Your task to perform on an android device: Go to Yahoo.com Image 0: 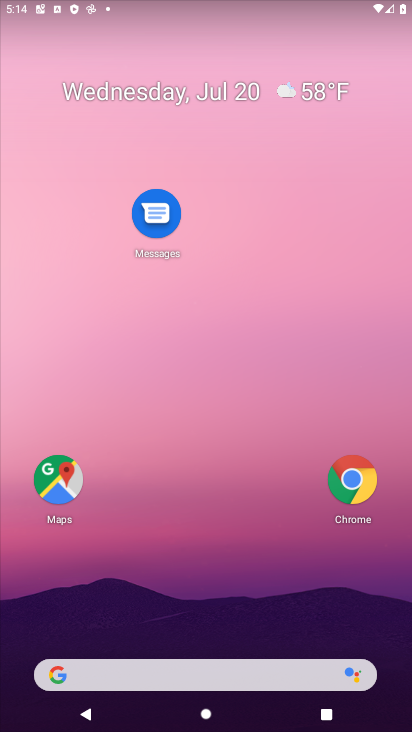
Step 0: click (344, 476)
Your task to perform on an android device: Go to Yahoo.com Image 1: 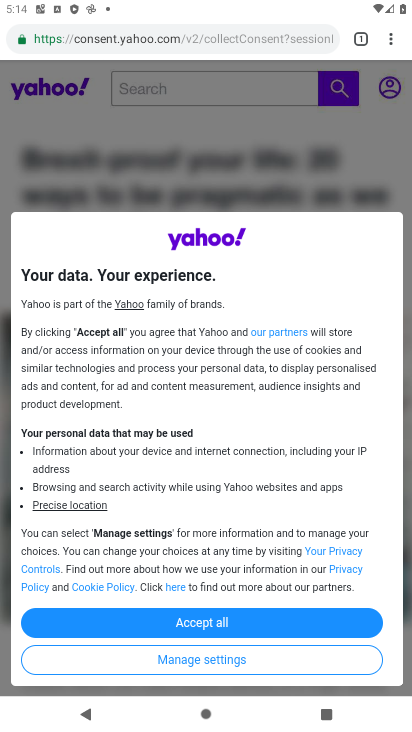
Step 1: task complete